Your task to perform on an android device: remove spam from my inbox in the gmail app Image 0: 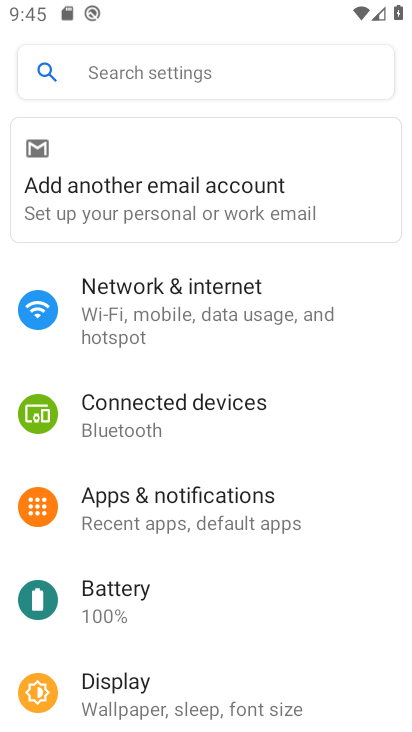
Step 0: press home button
Your task to perform on an android device: remove spam from my inbox in the gmail app Image 1: 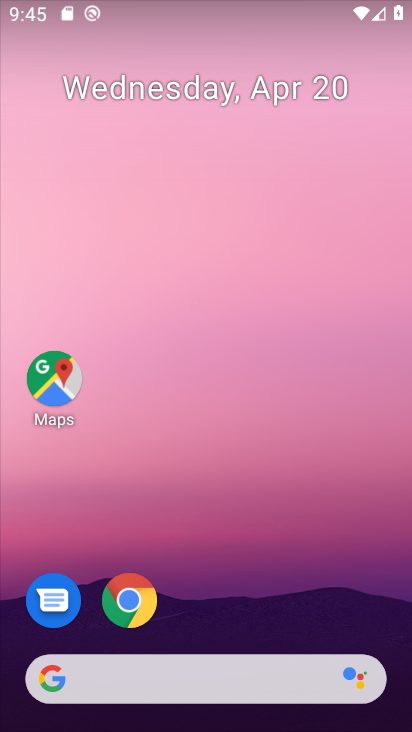
Step 1: drag from (221, 612) to (227, 166)
Your task to perform on an android device: remove spam from my inbox in the gmail app Image 2: 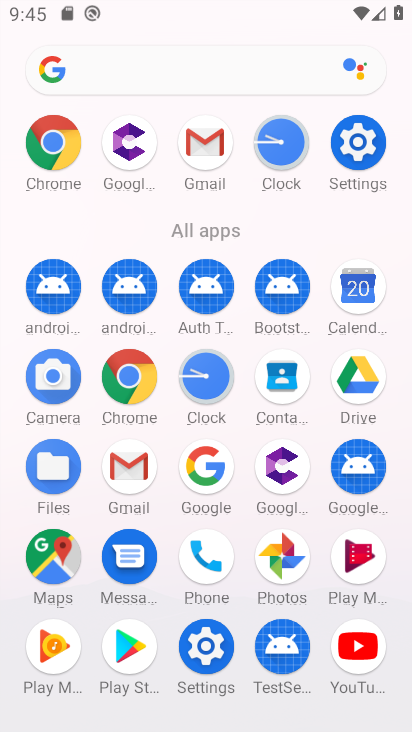
Step 2: click (219, 158)
Your task to perform on an android device: remove spam from my inbox in the gmail app Image 3: 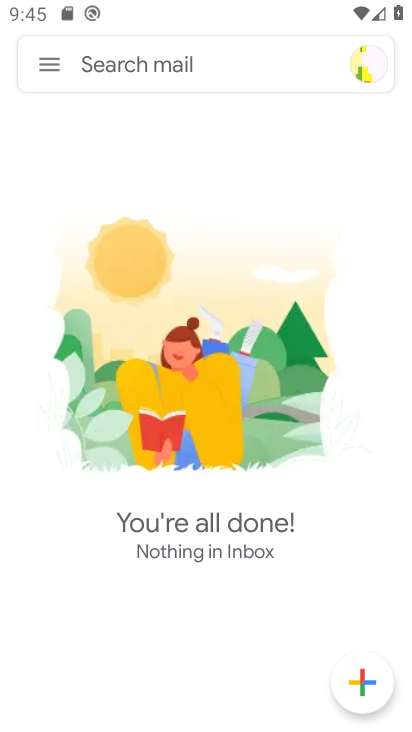
Step 3: click (47, 63)
Your task to perform on an android device: remove spam from my inbox in the gmail app Image 4: 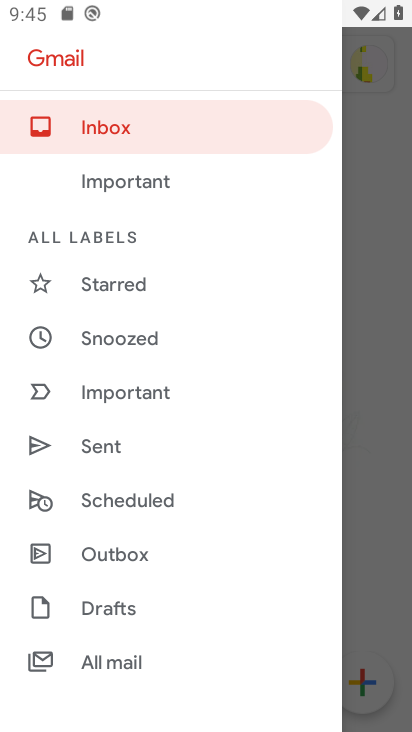
Step 4: drag from (128, 627) to (153, 284)
Your task to perform on an android device: remove spam from my inbox in the gmail app Image 5: 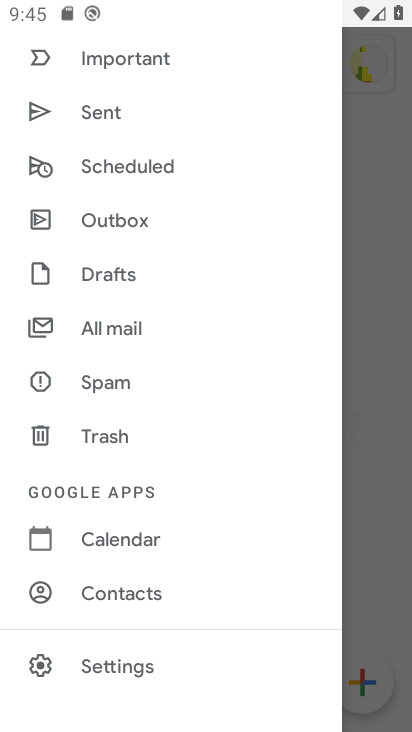
Step 5: click (114, 384)
Your task to perform on an android device: remove spam from my inbox in the gmail app Image 6: 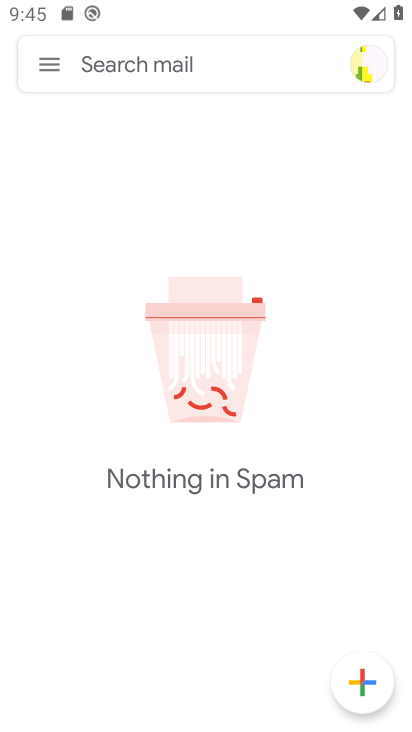
Step 6: task complete